Your task to perform on an android device: see creations saved in the google photos Image 0: 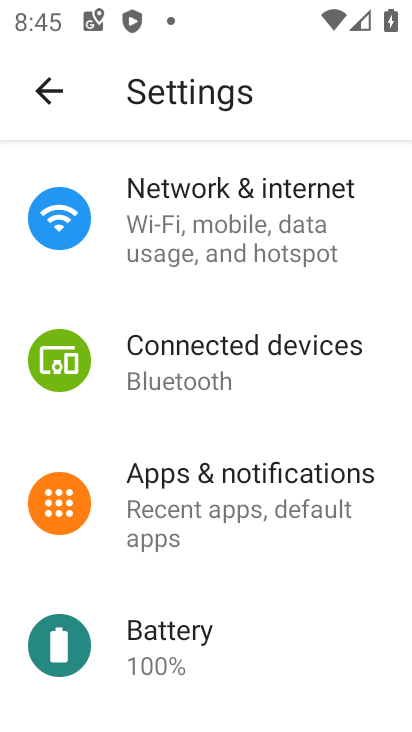
Step 0: press home button
Your task to perform on an android device: see creations saved in the google photos Image 1: 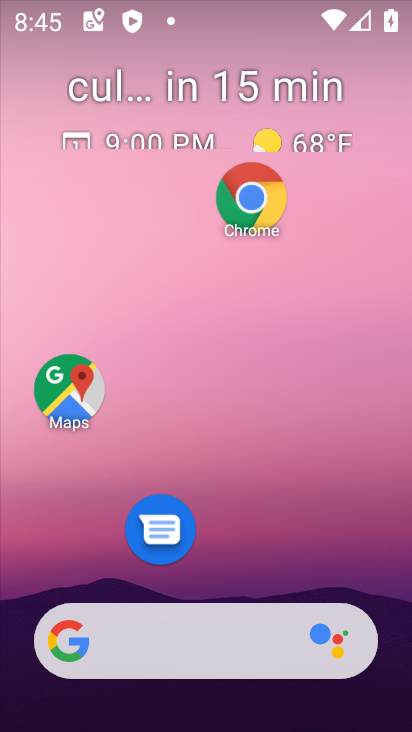
Step 1: drag from (216, 575) to (219, 233)
Your task to perform on an android device: see creations saved in the google photos Image 2: 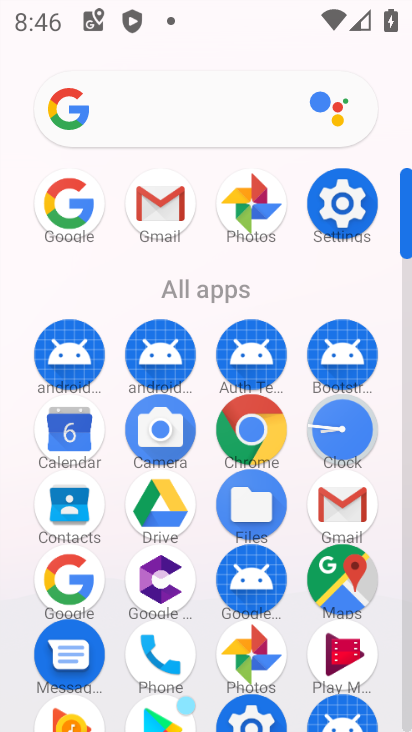
Step 2: click (258, 212)
Your task to perform on an android device: see creations saved in the google photos Image 3: 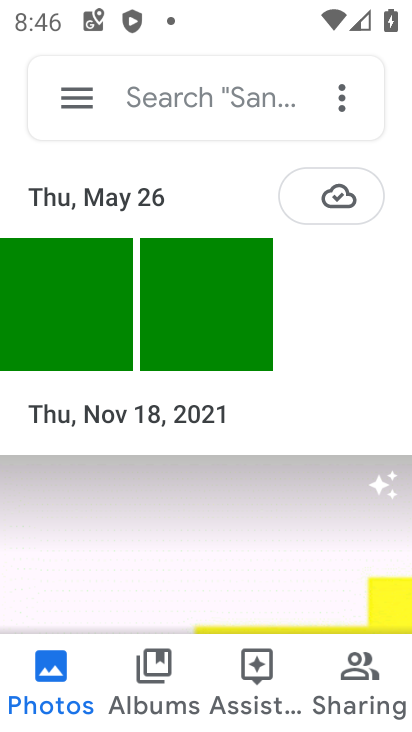
Step 3: click (207, 94)
Your task to perform on an android device: see creations saved in the google photos Image 4: 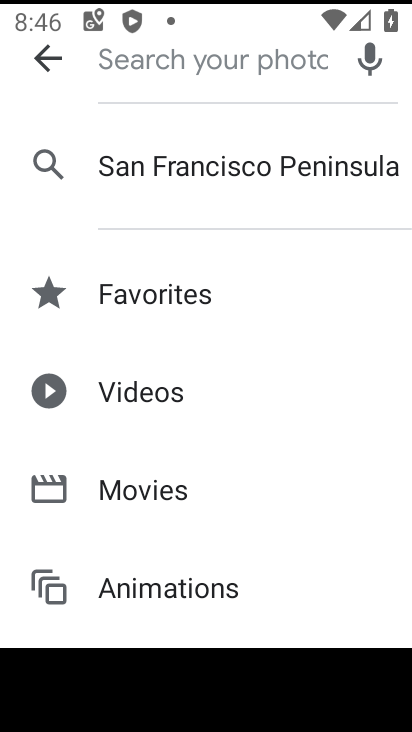
Step 4: drag from (237, 532) to (271, 182)
Your task to perform on an android device: see creations saved in the google photos Image 5: 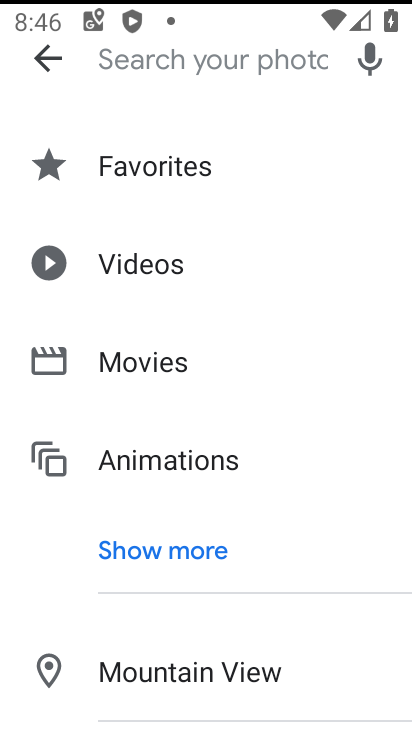
Step 5: click (171, 553)
Your task to perform on an android device: see creations saved in the google photos Image 6: 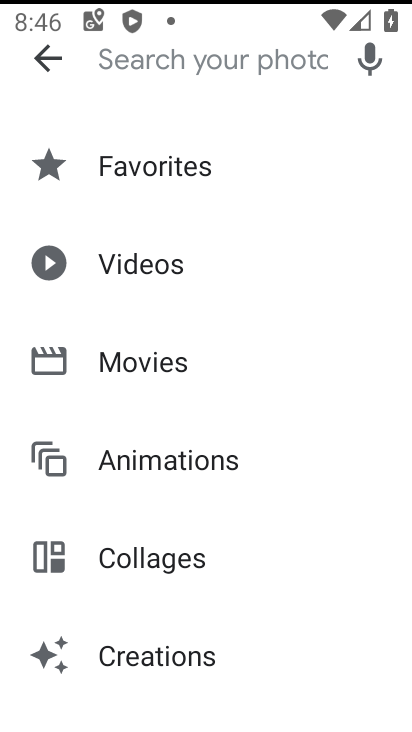
Step 6: drag from (171, 553) to (201, 281)
Your task to perform on an android device: see creations saved in the google photos Image 7: 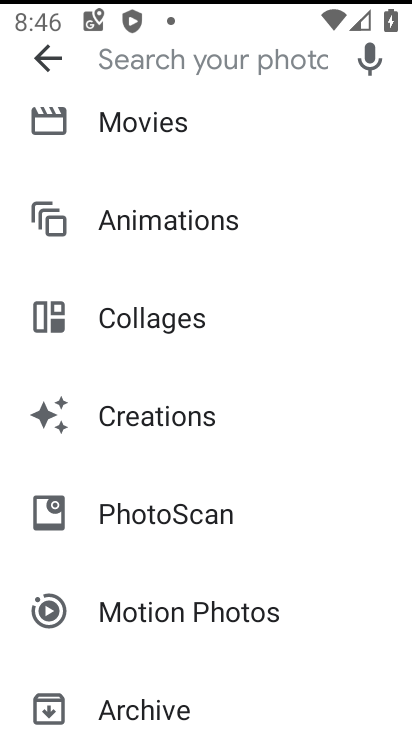
Step 7: click (166, 422)
Your task to perform on an android device: see creations saved in the google photos Image 8: 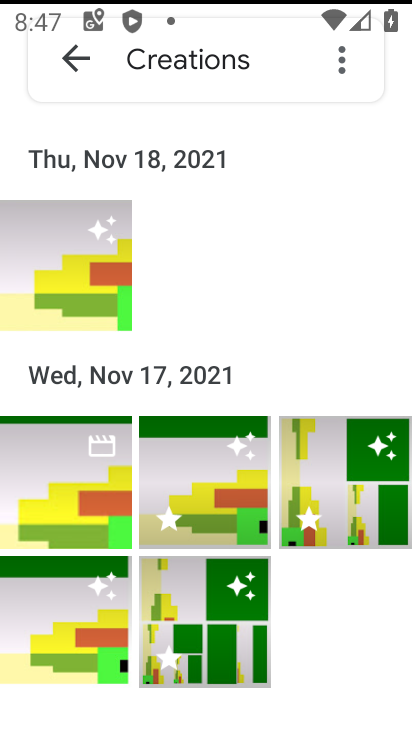
Step 8: task complete